Your task to perform on an android device: turn off priority inbox in the gmail app Image 0: 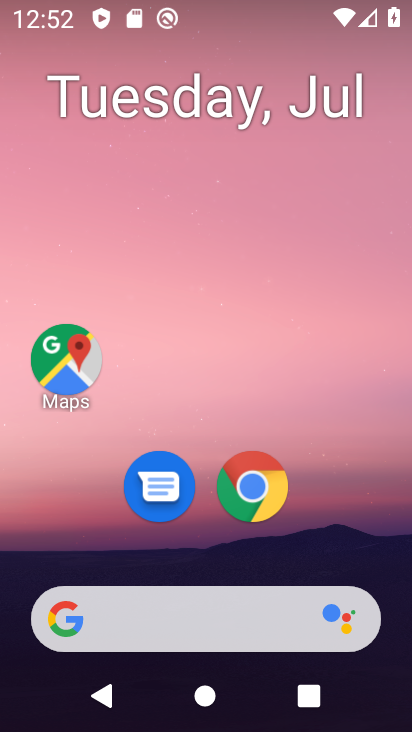
Step 0: drag from (363, 545) to (375, 108)
Your task to perform on an android device: turn off priority inbox in the gmail app Image 1: 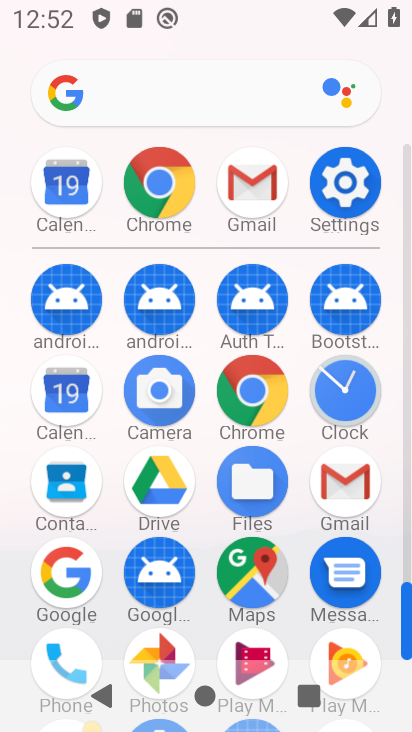
Step 1: click (350, 478)
Your task to perform on an android device: turn off priority inbox in the gmail app Image 2: 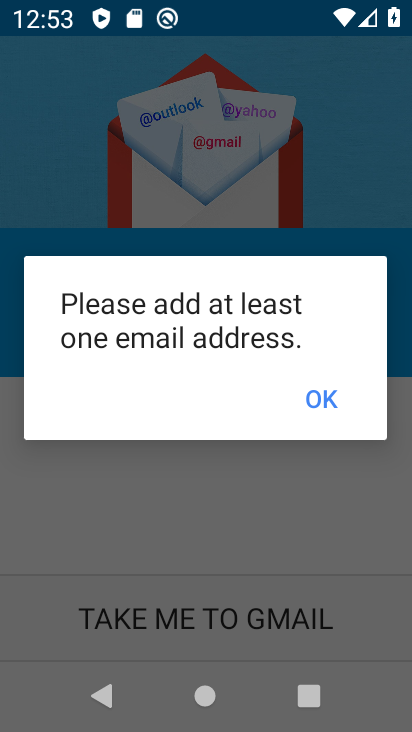
Step 2: task complete